Your task to perform on an android device: refresh tabs in the chrome app Image 0: 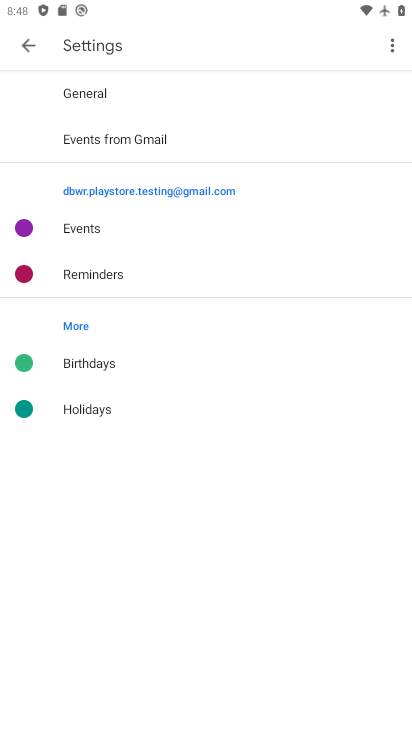
Step 0: press home button
Your task to perform on an android device: refresh tabs in the chrome app Image 1: 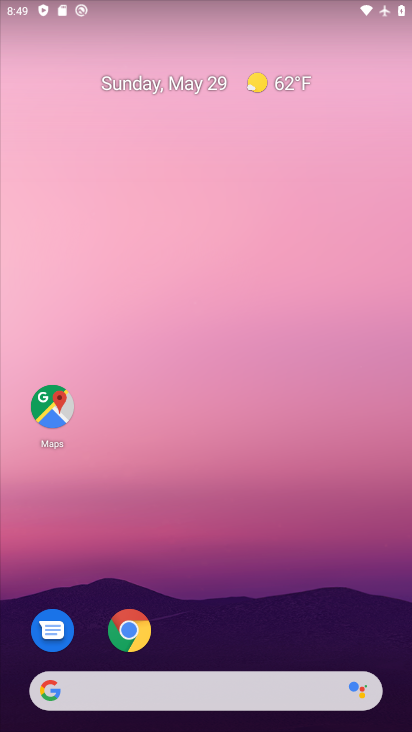
Step 1: click (131, 638)
Your task to perform on an android device: refresh tabs in the chrome app Image 2: 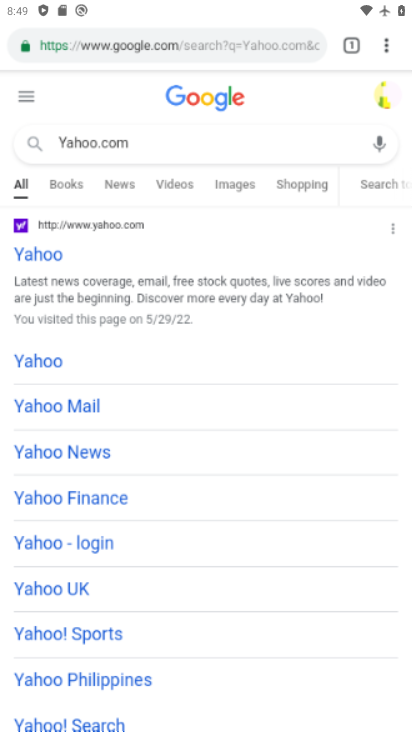
Step 2: click (374, 94)
Your task to perform on an android device: refresh tabs in the chrome app Image 3: 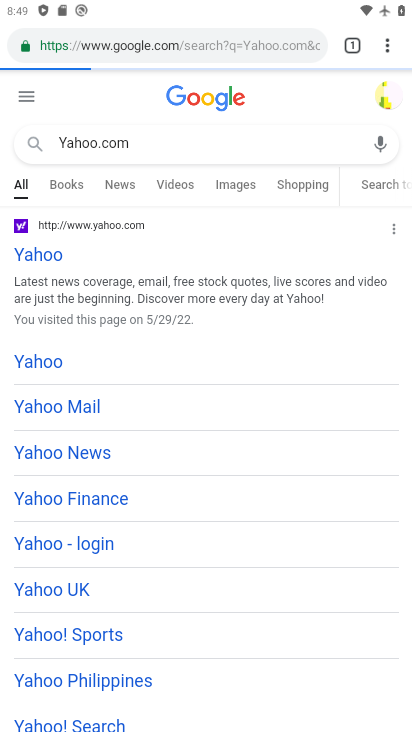
Step 3: click (384, 45)
Your task to perform on an android device: refresh tabs in the chrome app Image 4: 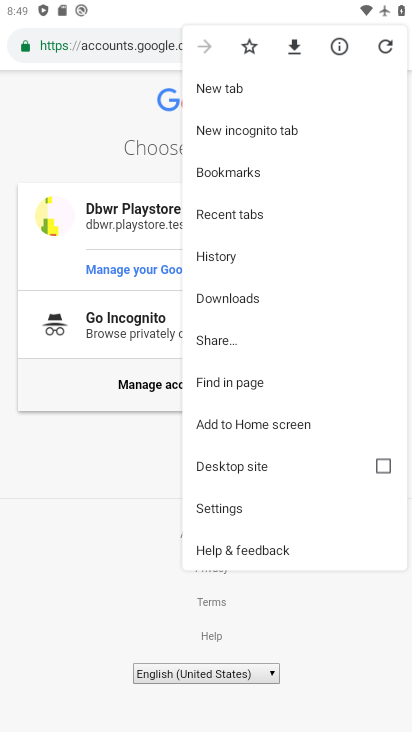
Step 4: click (384, 50)
Your task to perform on an android device: refresh tabs in the chrome app Image 5: 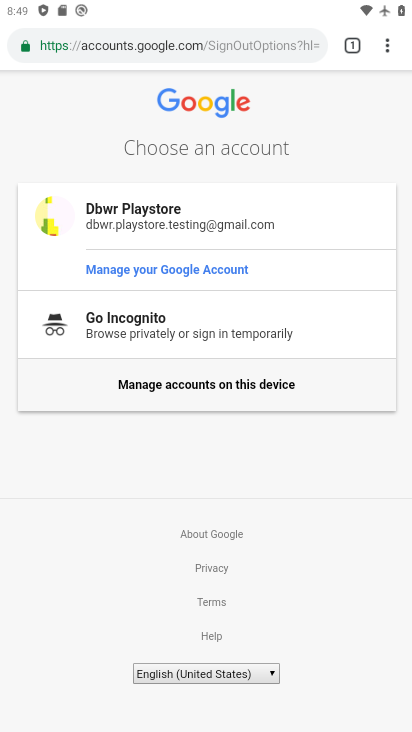
Step 5: task complete